Your task to perform on an android device: delete location history Image 0: 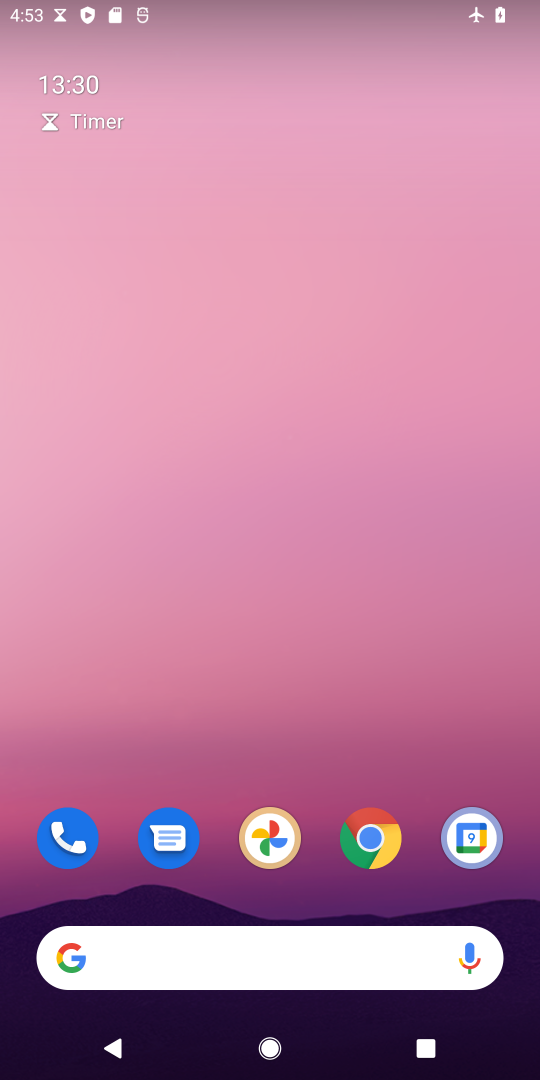
Step 0: drag from (317, 775) to (273, 54)
Your task to perform on an android device: delete location history Image 1: 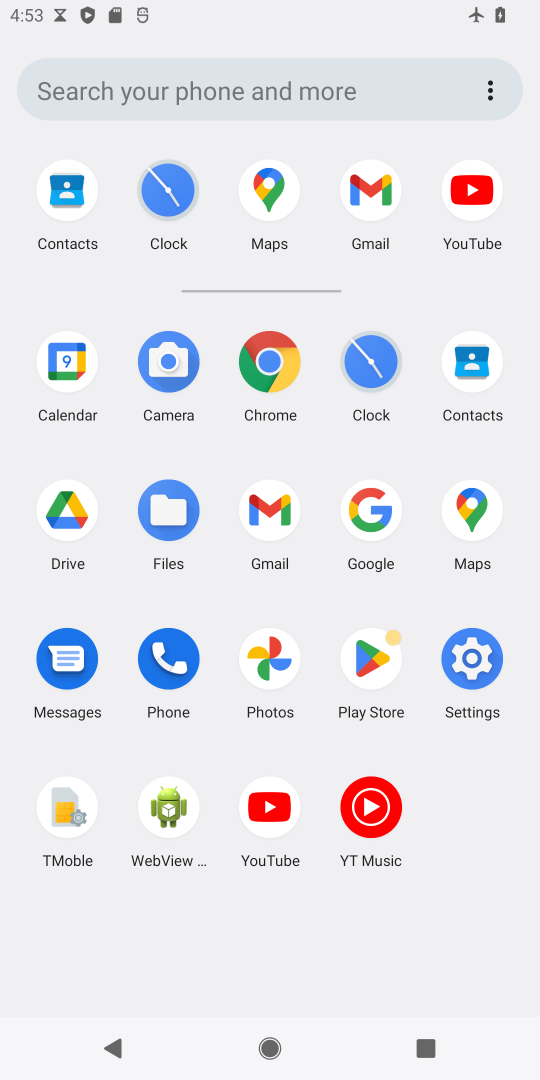
Step 1: click (268, 208)
Your task to perform on an android device: delete location history Image 2: 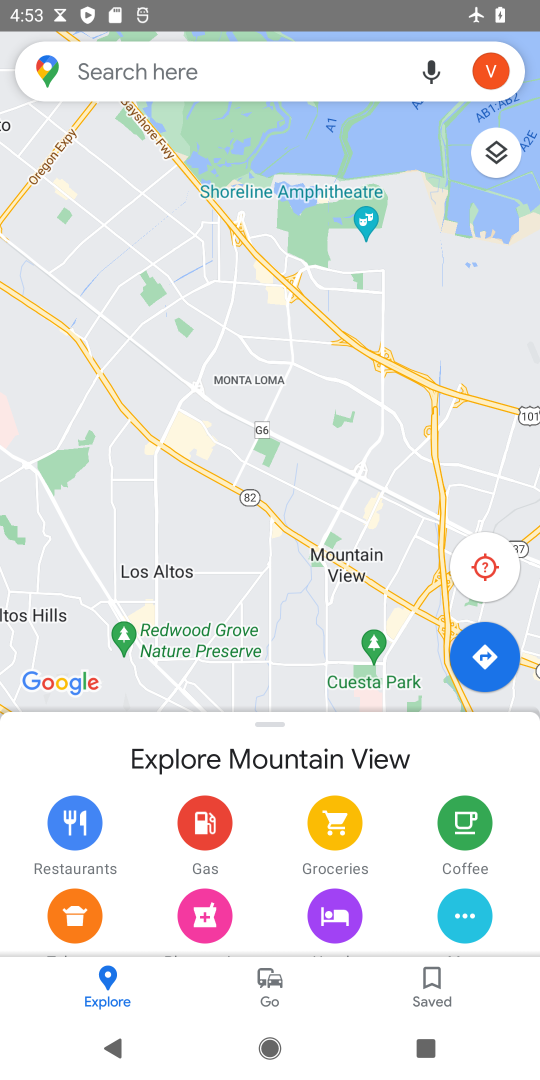
Step 2: click (496, 71)
Your task to perform on an android device: delete location history Image 3: 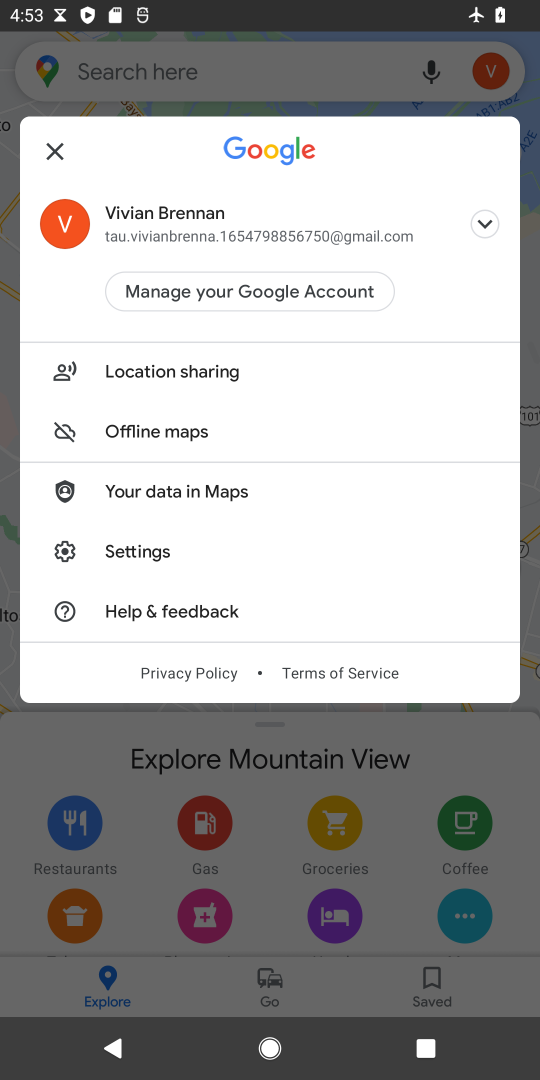
Step 3: click (193, 538)
Your task to perform on an android device: delete location history Image 4: 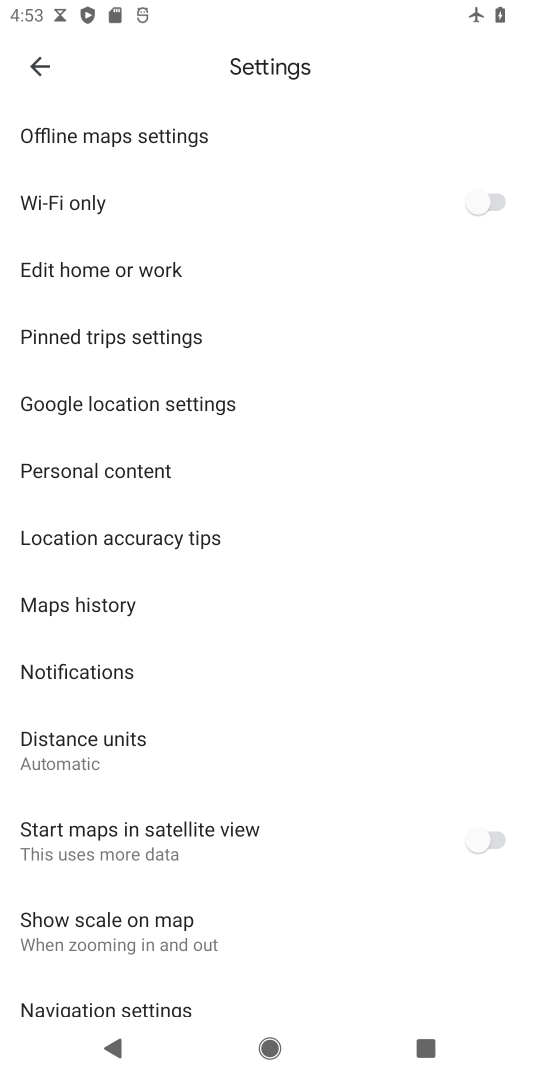
Step 4: task complete